Your task to perform on an android device: Open Google Chrome Image 0: 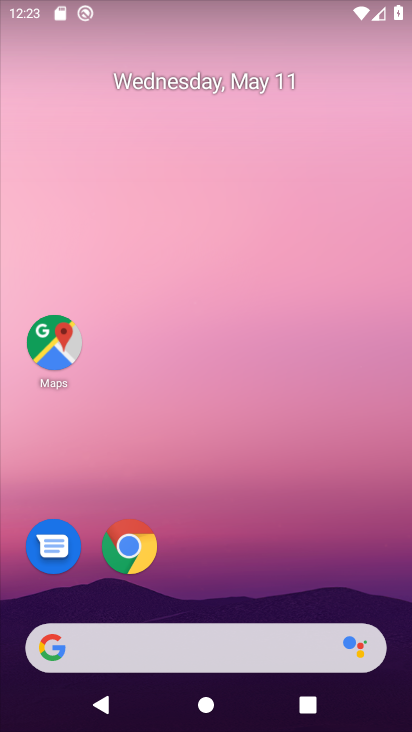
Step 0: drag from (228, 502) to (246, 323)
Your task to perform on an android device: Open Google Chrome Image 1: 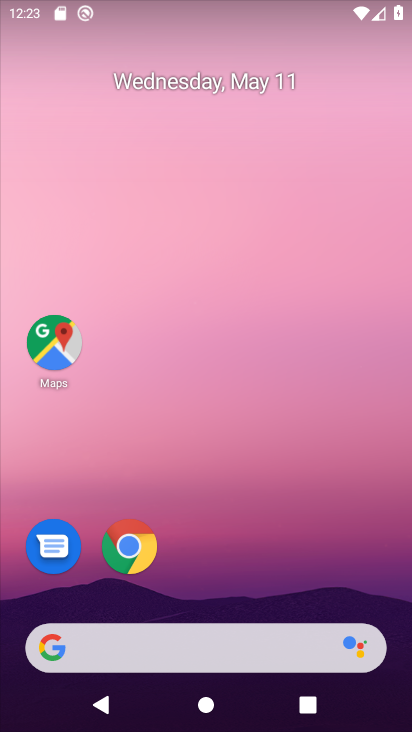
Step 1: drag from (234, 574) to (266, 276)
Your task to perform on an android device: Open Google Chrome Image 2: 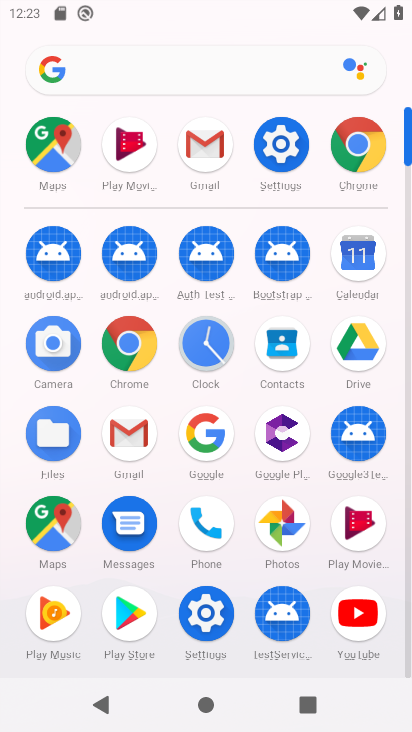
Step 2: click (207, 432)
Your task to perform on an android device: Open Google Chrome Image 3: 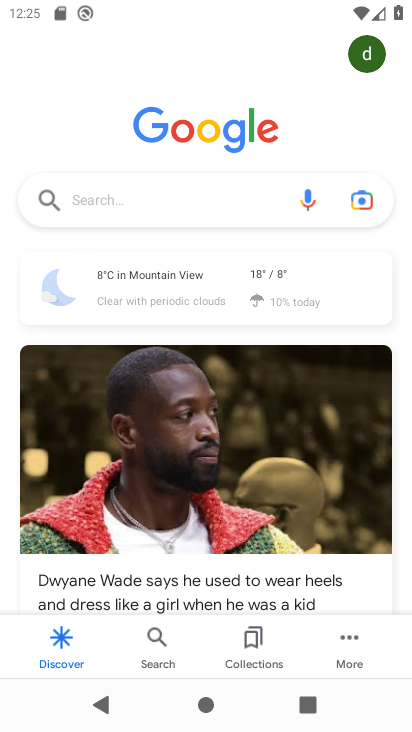
Step 3: task complete